Your task to perform on an android device: turn off location Image 0: 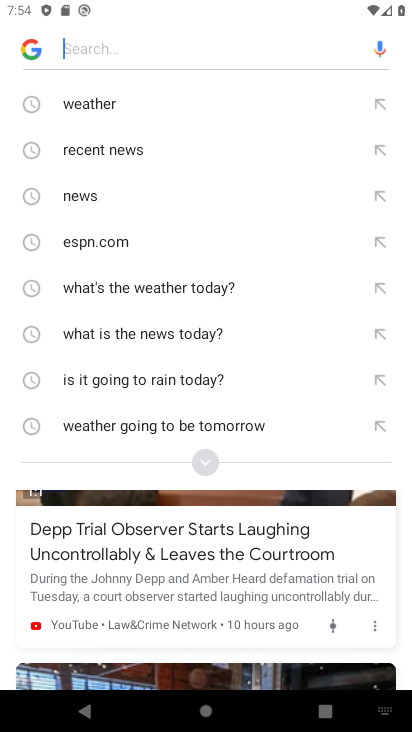
Step 0: press back button
Your task to perform on an android device: turn off location Image 1: 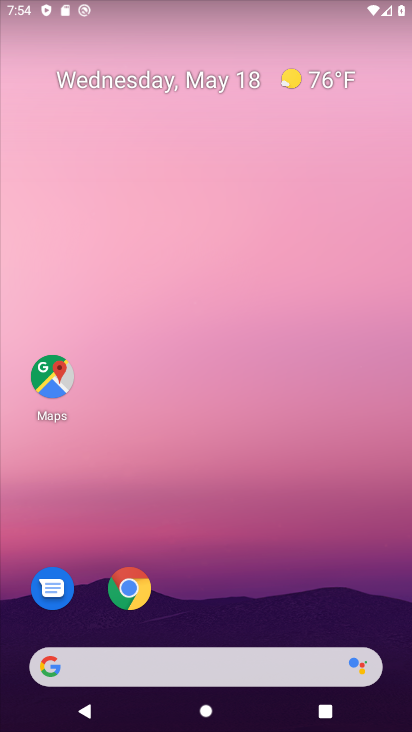
Step 1: drag from (268, 624) to (313, 129)
Your task to perform on an android device: turn off location Image 2: 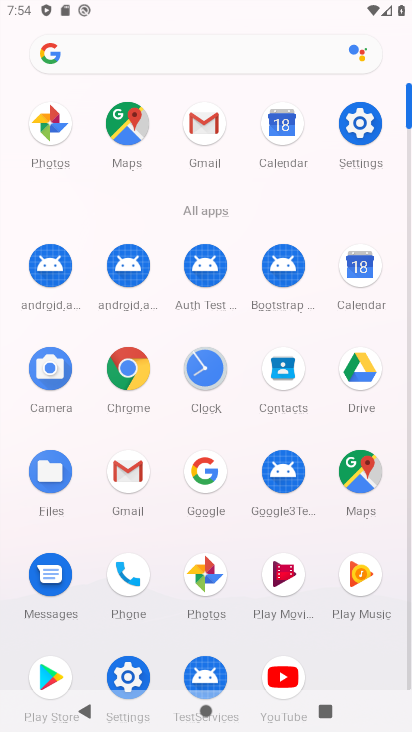
Step 2: click (369, 140)
Your task to perform on an android device: turn off location Image 3: 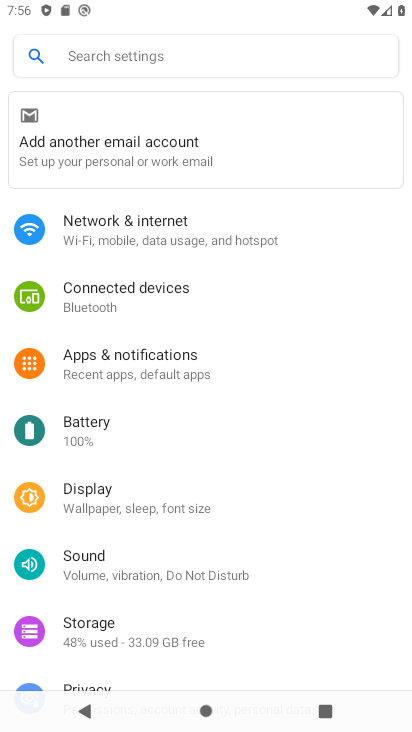
Step 3: drag from (117, 568) to (150, 324)
Your task to perform on an android device: turn off location Image 4: 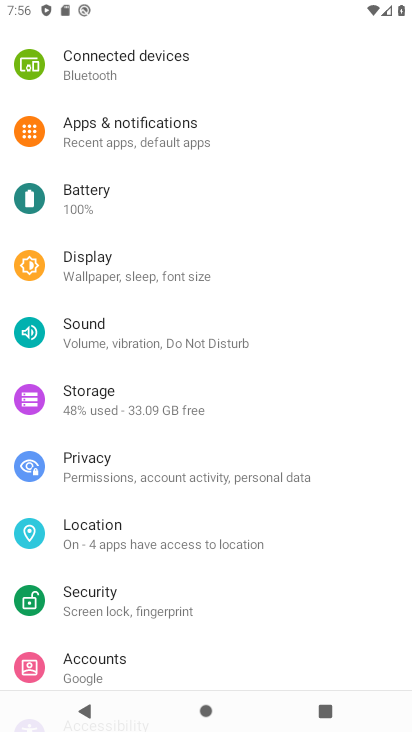
Step 4: click (192, 534)
Your task to perform on an android device: turn off location Image 5: 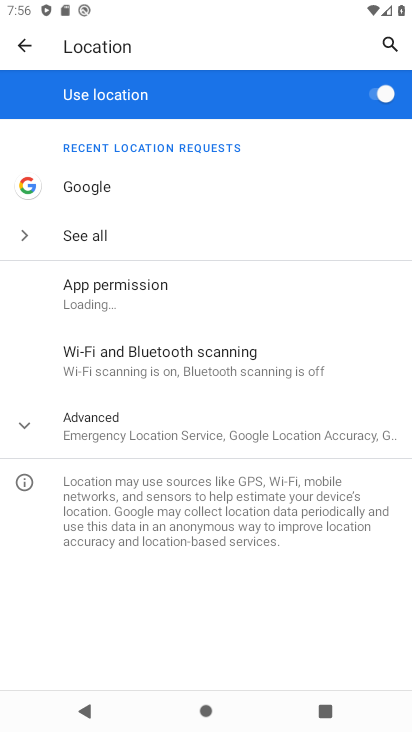
Step 5: click (367, 114)
Your task to perform on an android device: turn off location Image 6: 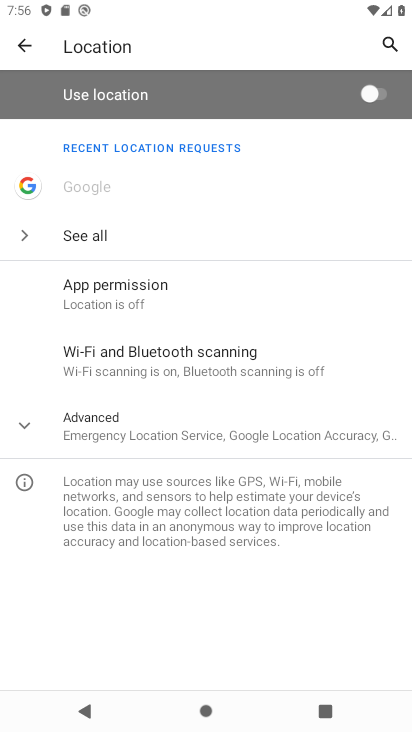
Step 6: task complete